Your task to perform on an android device: What's the weather going to be tomorrow? Image 0: 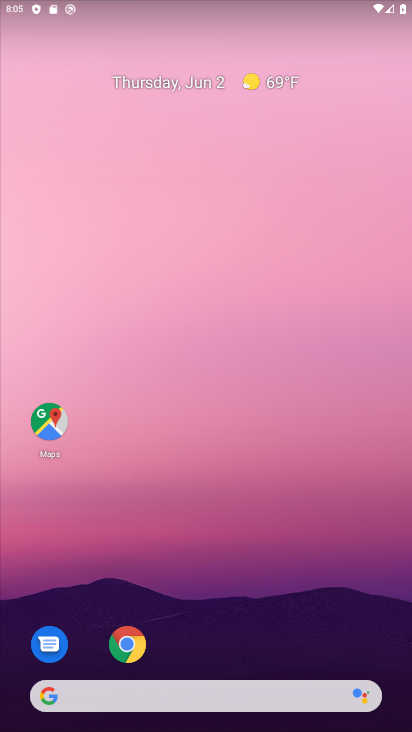
Step 0: drag from (212, 631) to (140, 42)
Your task to perform on an android device: What's the weather going to be tomorrow? Image 1: 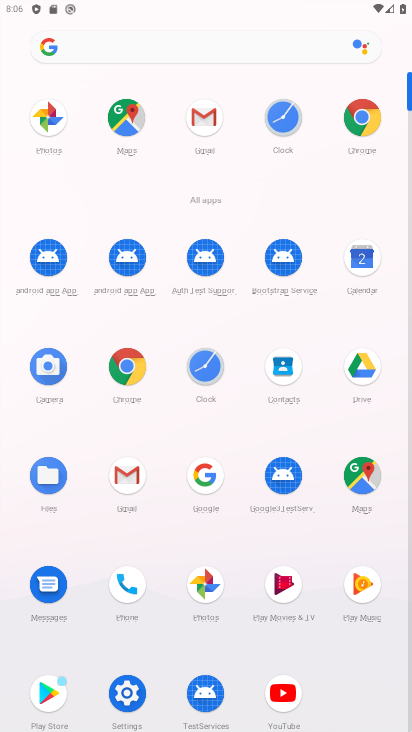
Step 1: drag from (15, 560) to (22, 270)
Your task to perform on an android device: What's the weather going to be tomorrow? Image 2: 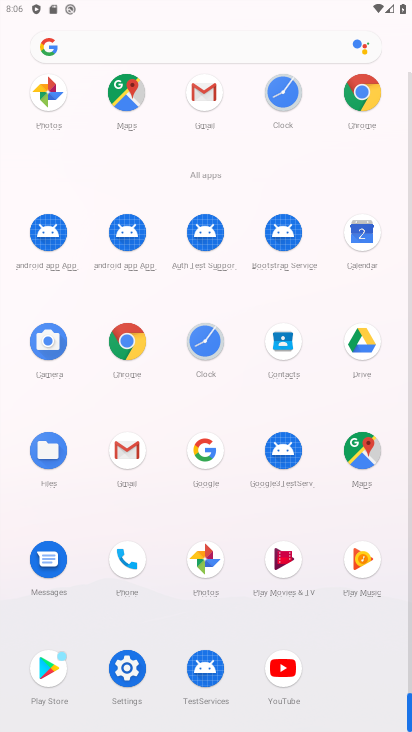
Step 2: click (125, 336)
Your task to perform on an android device: What's the weather going to be tomorrow? Image 3: 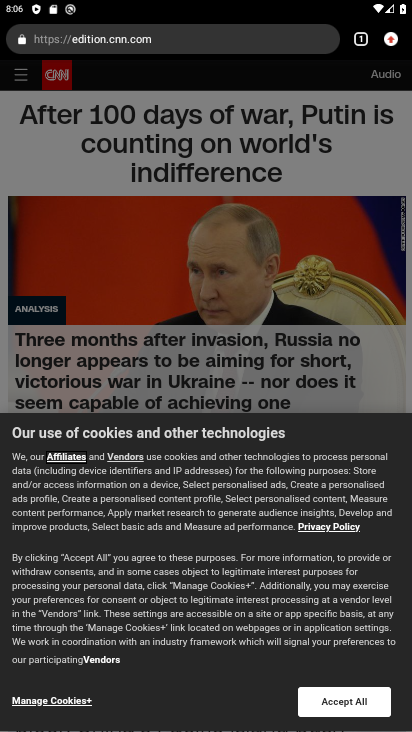
Step 3: click (164, 43)
Your task to perform on an android device: What's the weather going to be tomorrow? Image 4: 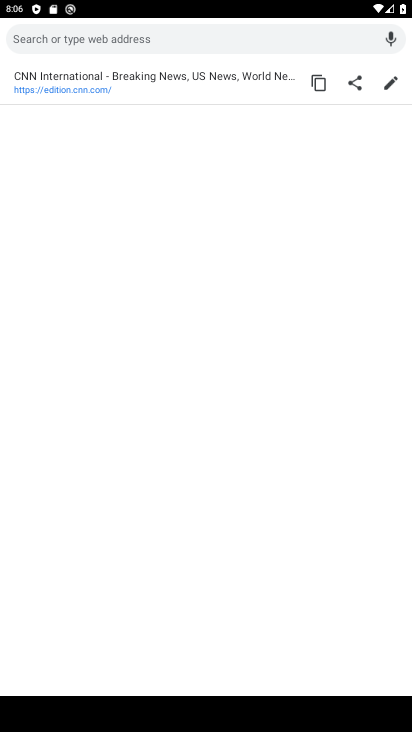
Step 4: type "What's the weather going to be tomorrow?"
Your task to perform on an android device: What's the weather going to be tomorrow? Image 5: 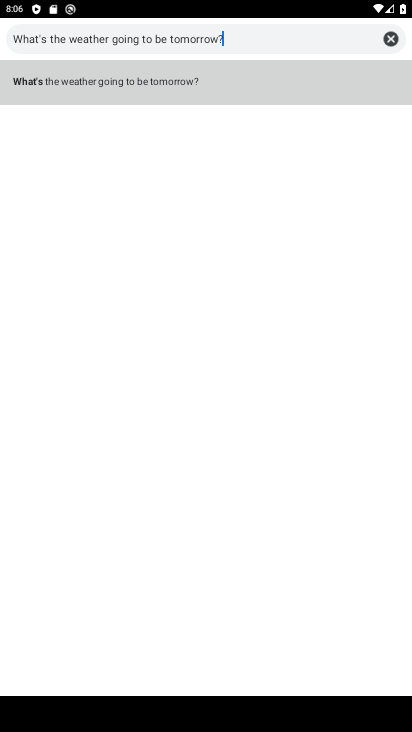
Step 5: type ""
Your task to perform on an android device: What's the weather going to be tomorrow? Image 6: 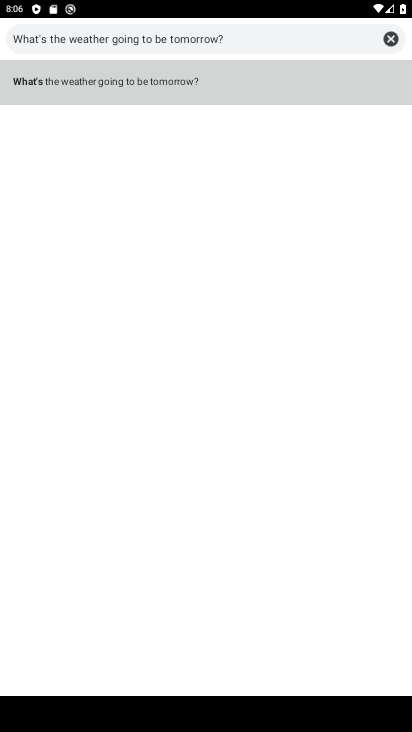
Step 6: click (189, 89)
Your task to perform on an android device: What's the weather going to be tomorrow? Image 7: 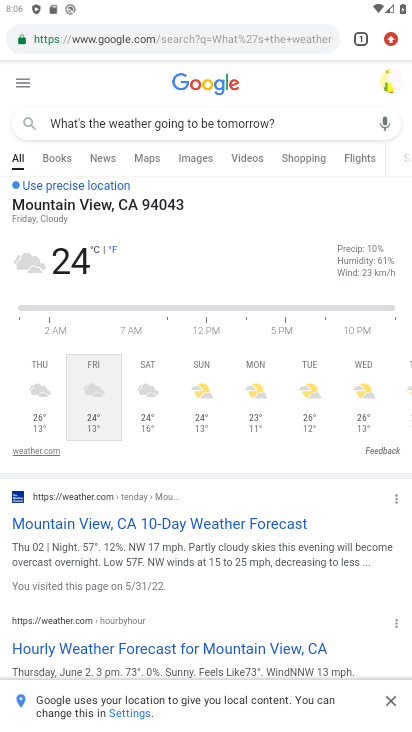
Step 7: task complete